Your task to perform on an android device: Search for vegetarian restaurants on Maps Image 0: 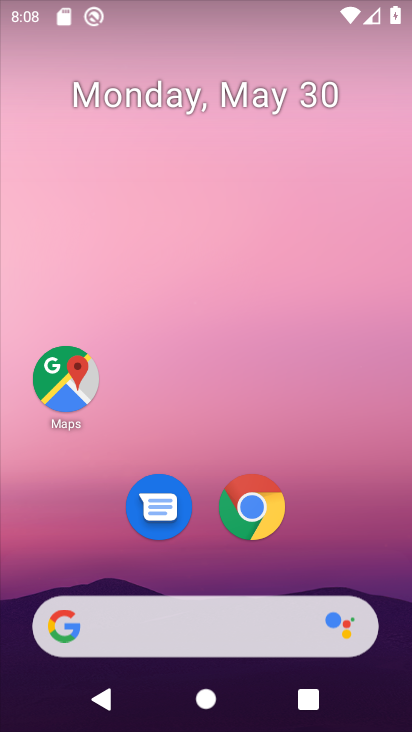
Step 0: click (70, 373)
Your task to perform on an android device: Search for vegetarian restaurants on Maps Image 1: 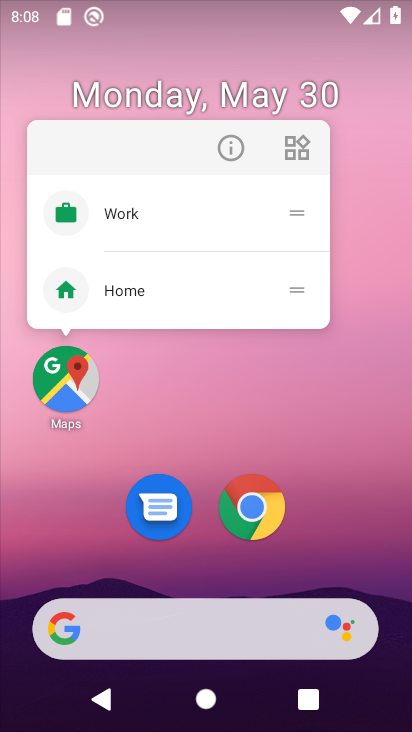
Step 1: click (70, 384)
Your task to perform on an android device: Search for vegetarian restaurants on Maps Image 2: 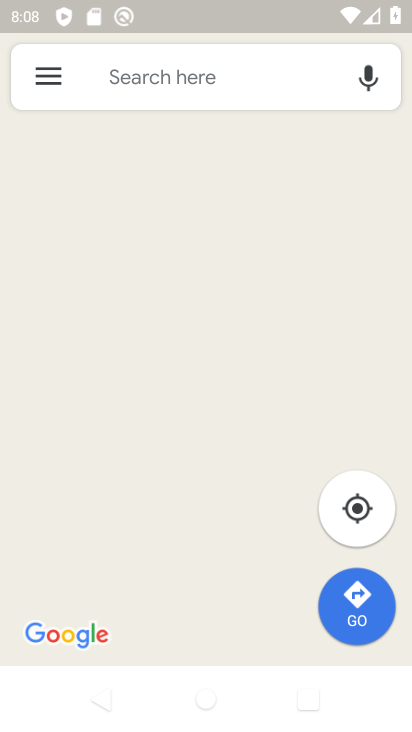
Step 2: click (207, 87)
Your task to perform on an android device: Search for vegetarian restaurants on Maps Image 3: 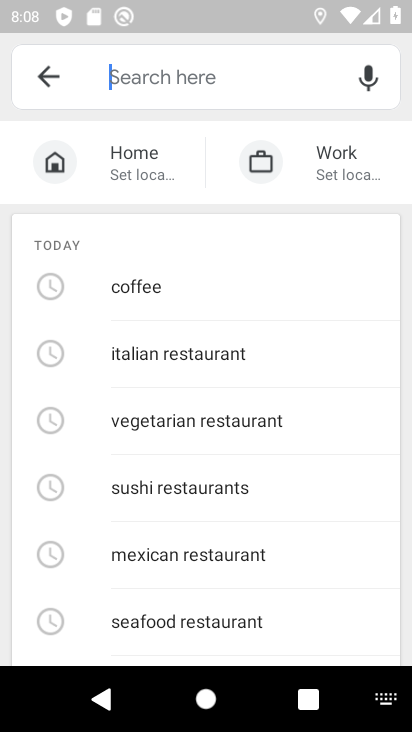
Step 3: type "vegetarian restaurants"
Your task to perform on an android device: Search for vegetarian restaurants on Maps Image 4: 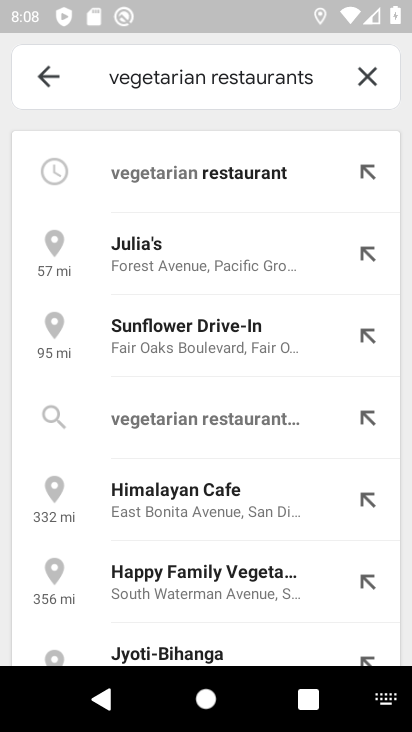
Step 4: click (248, 184)
Your task to perform on an android device: Search for vegetarian restaurants on Maps Image 5: 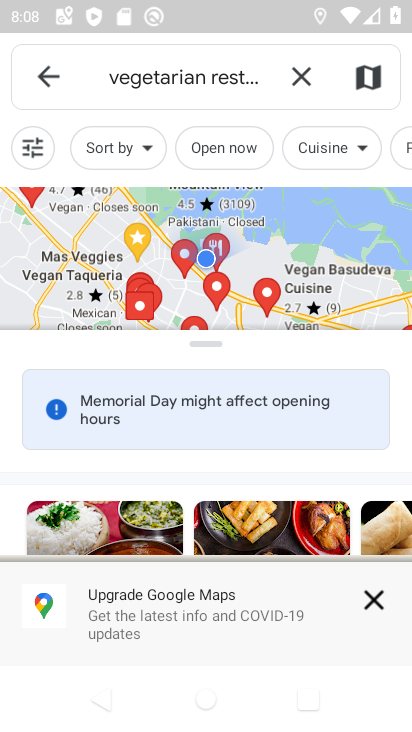
Step 5: click (370, 600)
Your task to perform on an android device: Search for vegetarian restaurants on Maps Image 6: 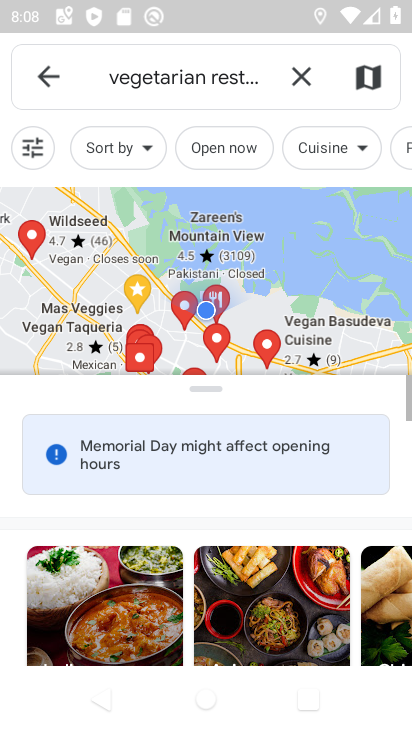
Step 6: task complete